Your task to perform on an android device: Open Wikipedia Image 0: 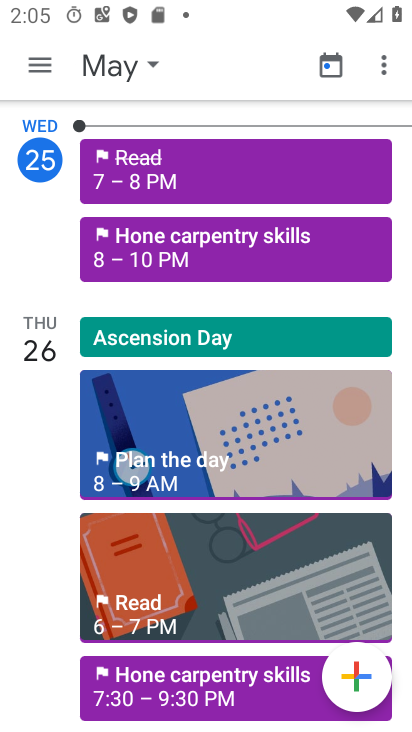
Step 0: press home button
Your task to perform on an android device: Open Wikipedia Image 1: 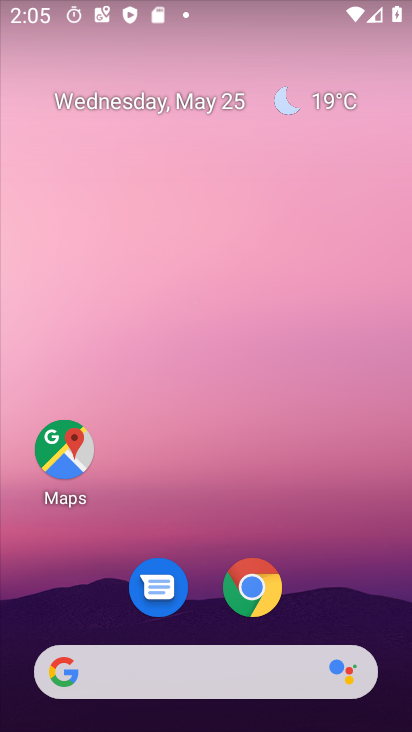
Step 1: click (247, 587)
Your task to perform on an android device: Open Wikipedia Image 2: 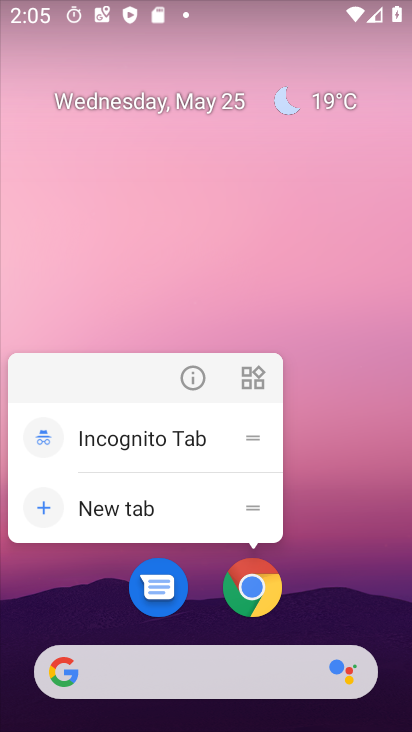
Step 2: click (247, 588)
Your task to perform on an android device: Open Wikipedia Image 3: 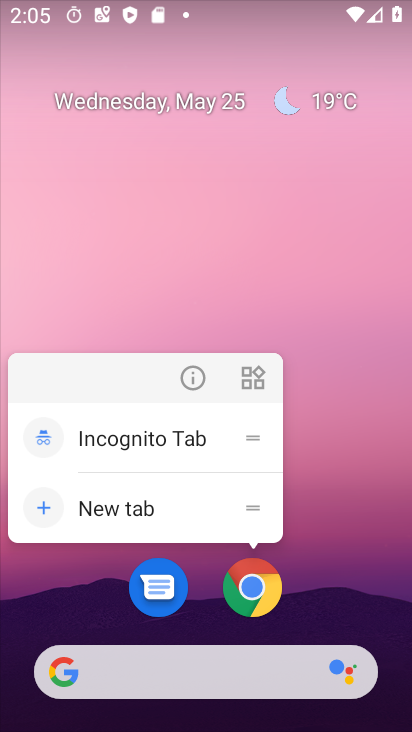
Step 3: click (253, 585)
Your task to perform on an android device: Open Wikipedia Image 4: 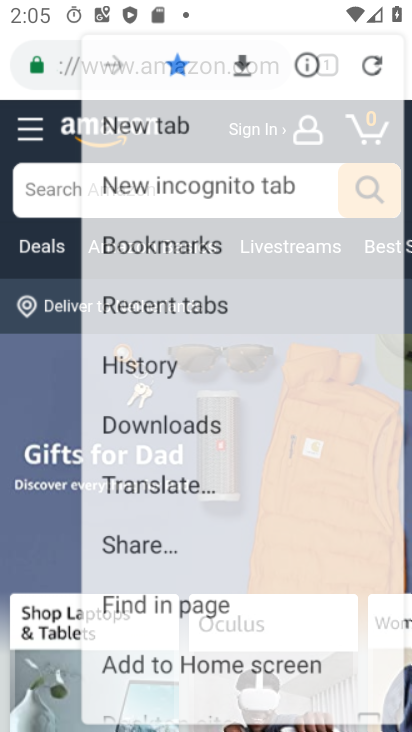
Step 4: press back button
Your task to perform on an android device: Open Wikipedia Image 5: 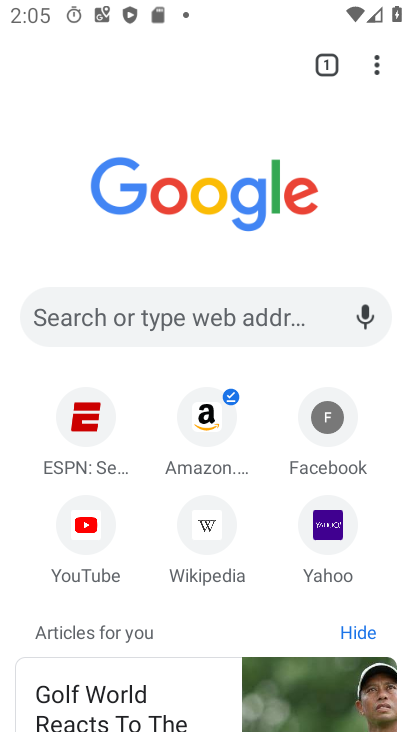
Step 5: click (210, 534)
Your task to perform on an android device: Open Wikipedia Image 6: 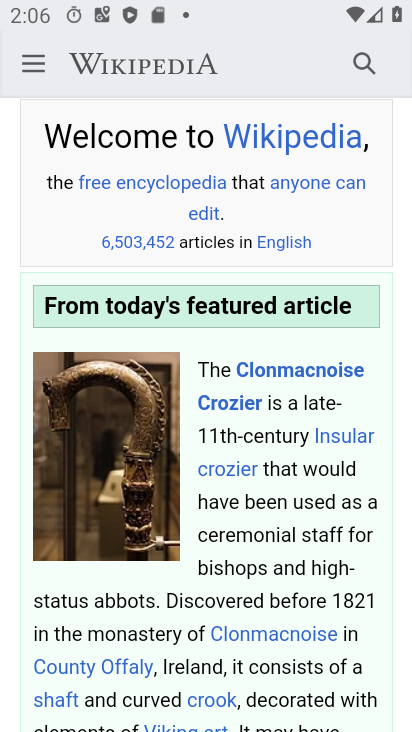
Step 6: task complete